Your task to perform on an android device: Go to ESPN.com Image 0: 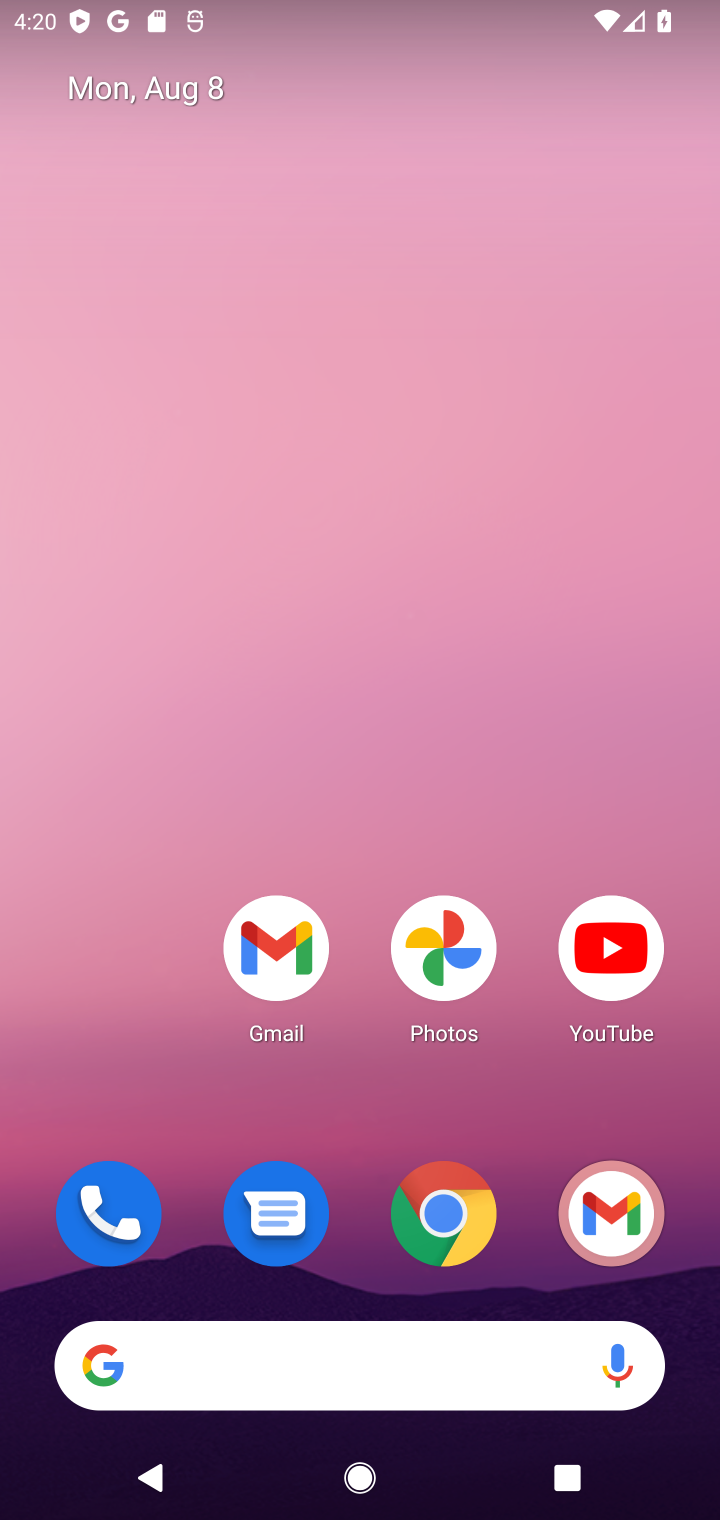
Step 0: click (441, 1173)
Your task to perform on an android device: Go to ESPN.com Image 1: 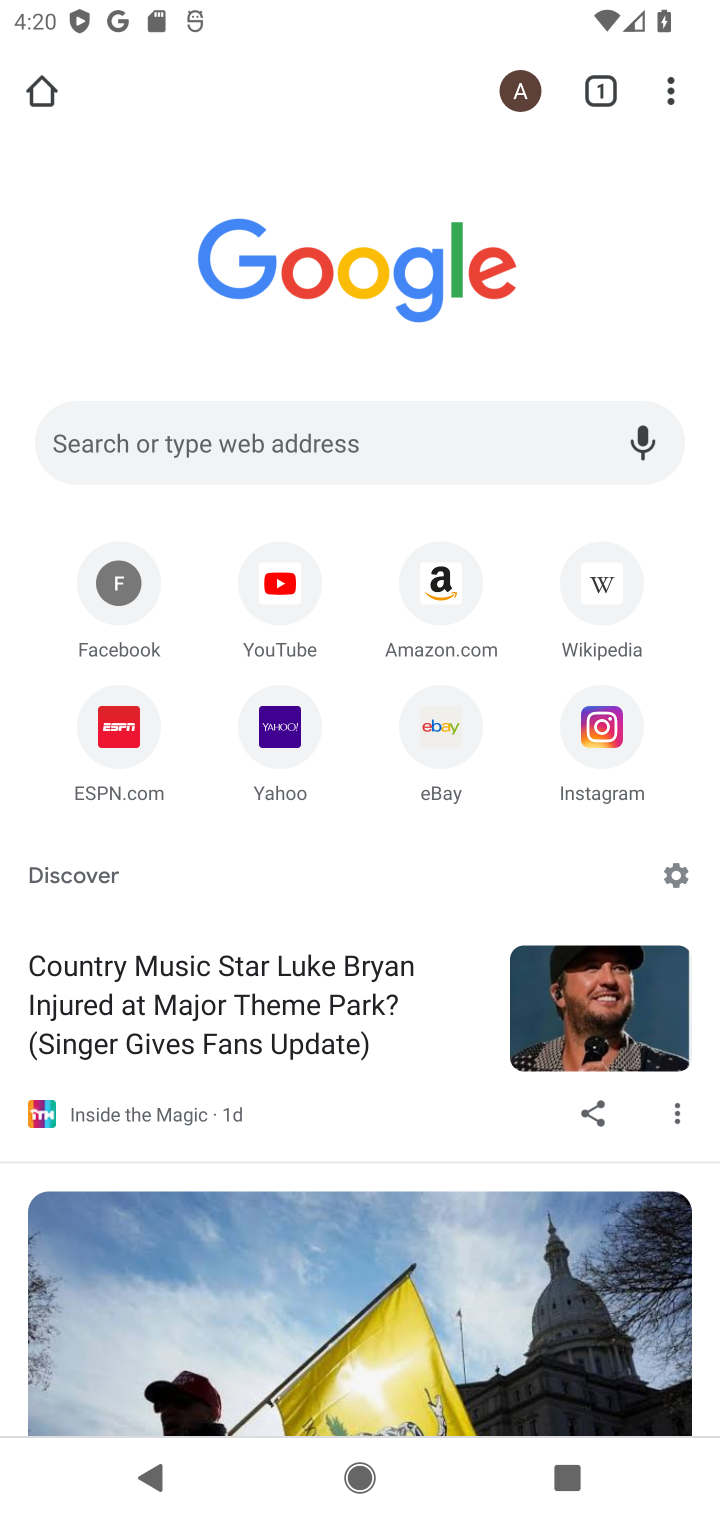
Step 1: click (123, 760)
Your task to perform on an android device: Go to ESPN.com Image 2: 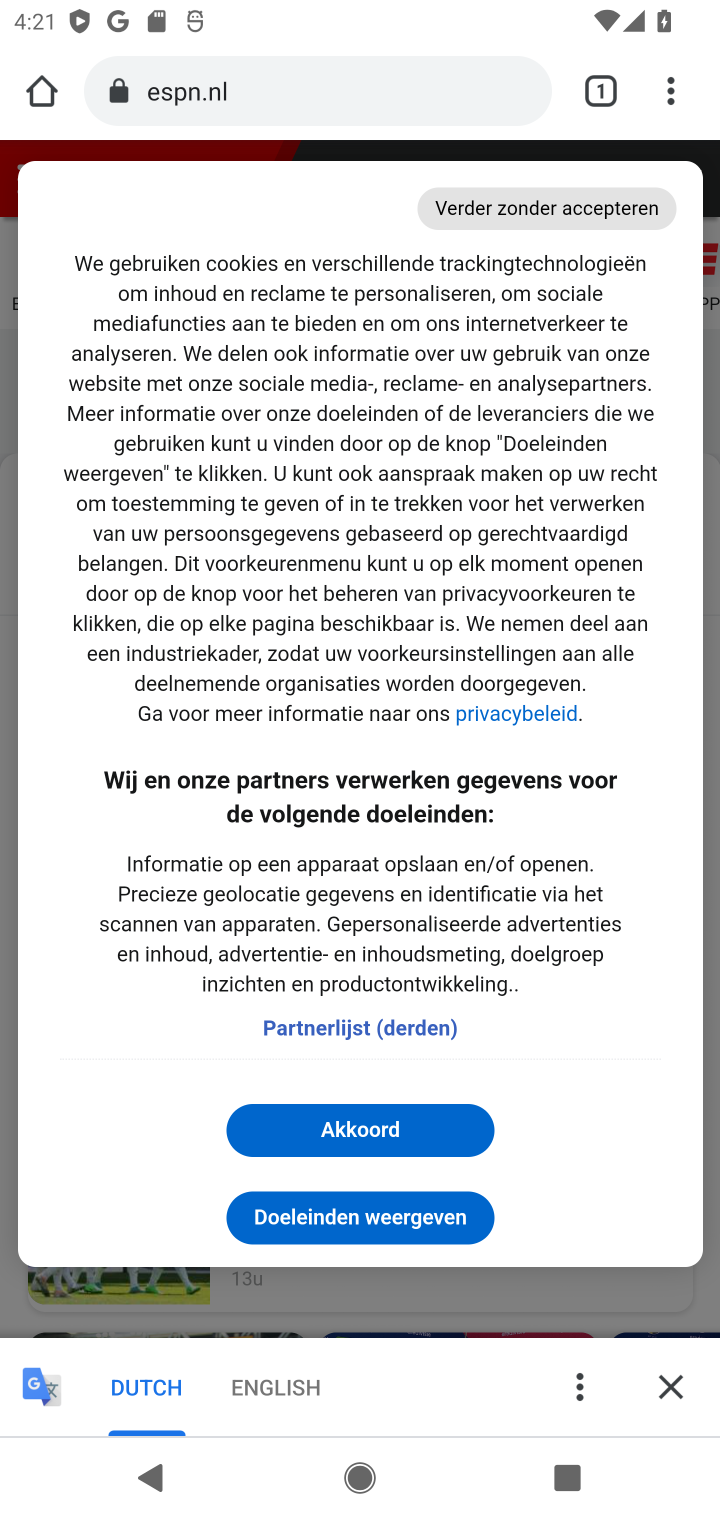
Step 2: task complete